Your task to perform on an android device: delete location history Image 0: 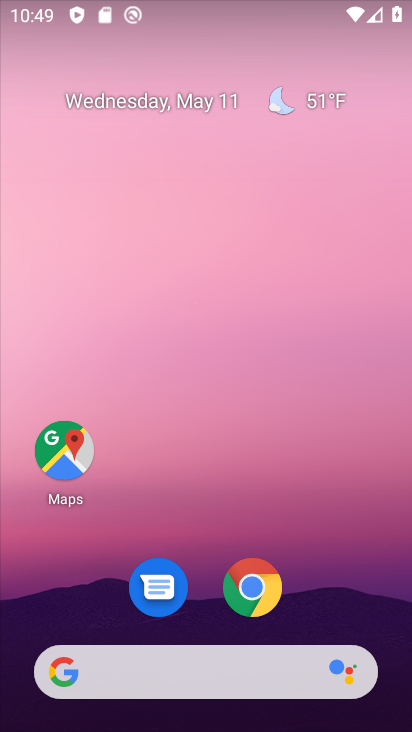
Step 0: click (61, 447)
Your task to perform on an android device: delete location history Image 1: 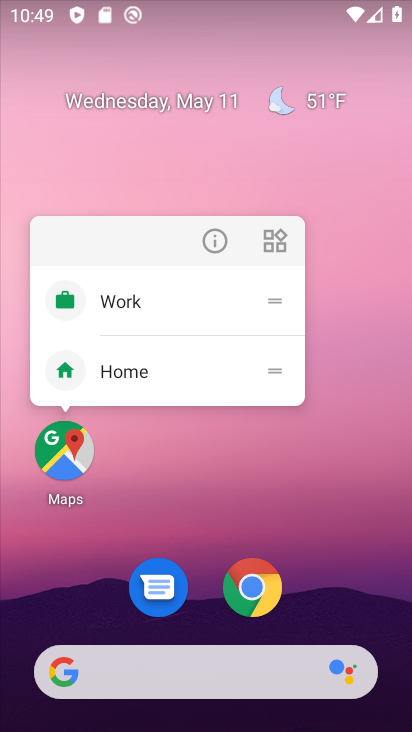
Step 1: click (60, 450)
Your task to perform on an android device: delete location history Image 2: 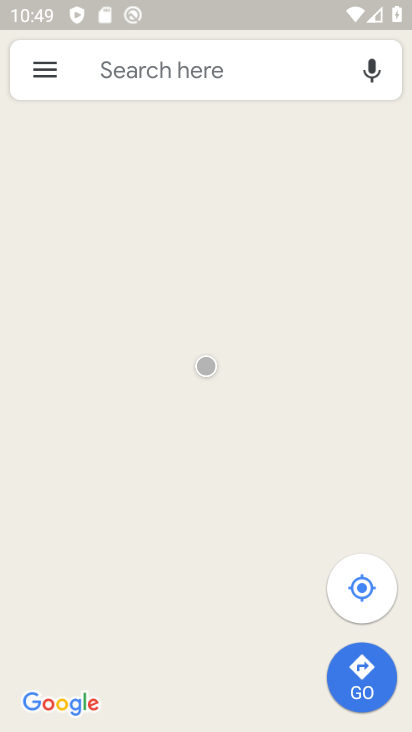
Step 2: click (30, 64)
Your task to perform on an android device: delete location history Image 3: 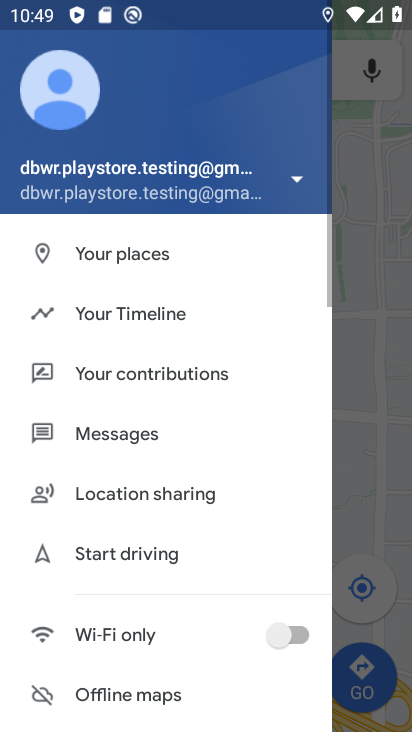
Step 3: click (150, 308)
Your task to perform on an android device: delete location history Image 4: 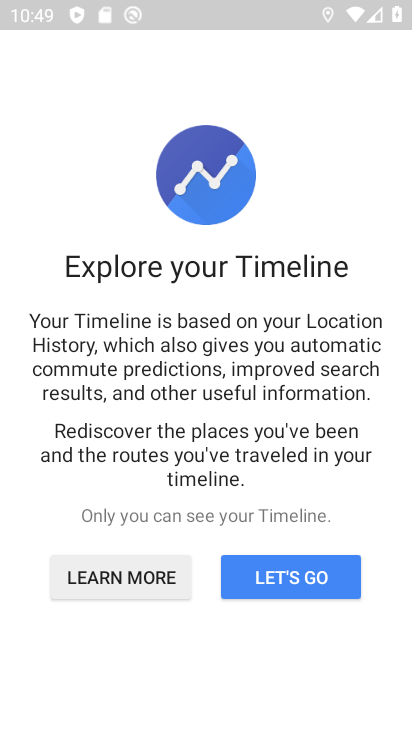
Step 4: click (269, 592)
Your task to perform on an android device: delete location history Image 5: 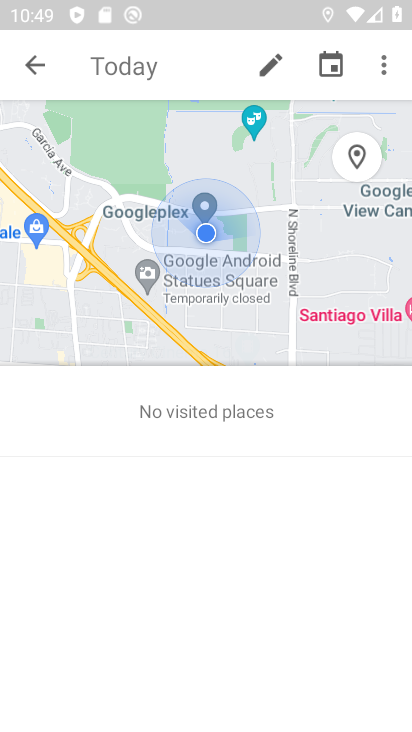
Step 5: click (390, 60)
Your task to perform on an android device: delete location history Image 6: 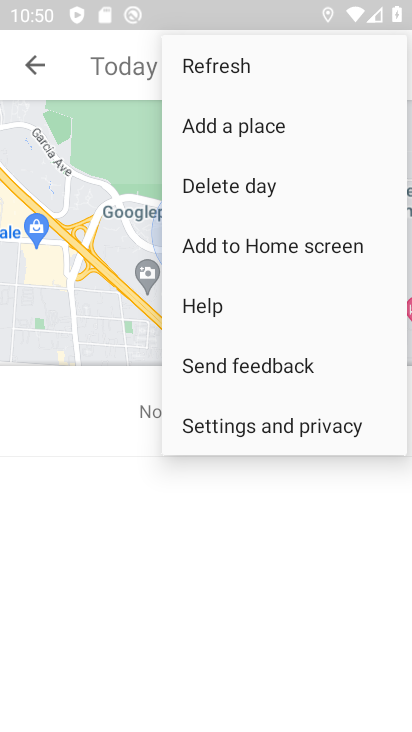
Step 6: click (224, 429)
Your task to perform on an android device: delete location history Image 7: 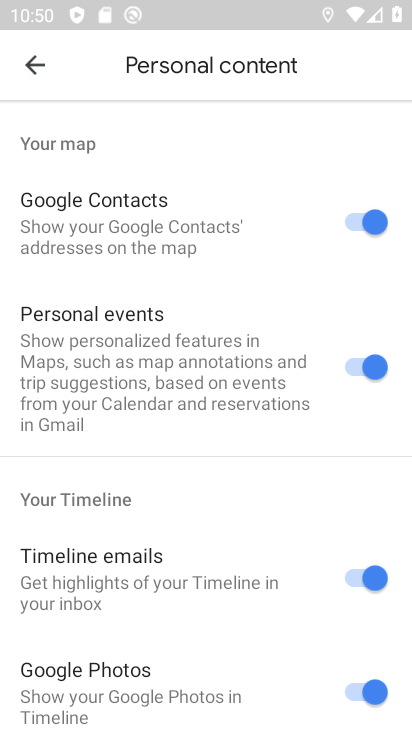
Step 7: drag from (186, 636) to (238, 73)
Your task to perform on an android device: delete location history Image 8: 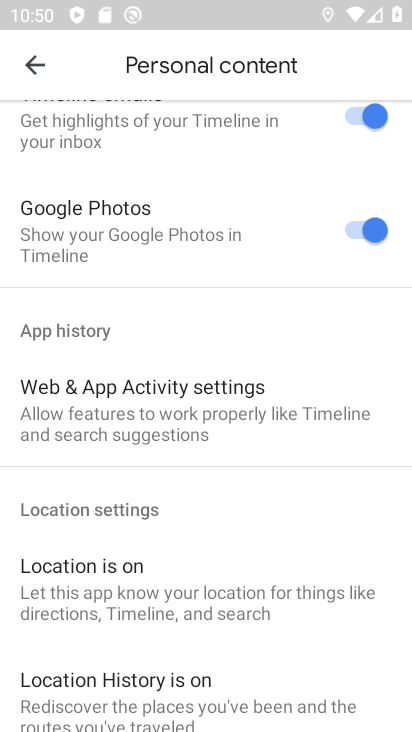
Step 8: drag from (214, 592) to (263, 76)
Your task to perform on an android device: delete location history Image 9: 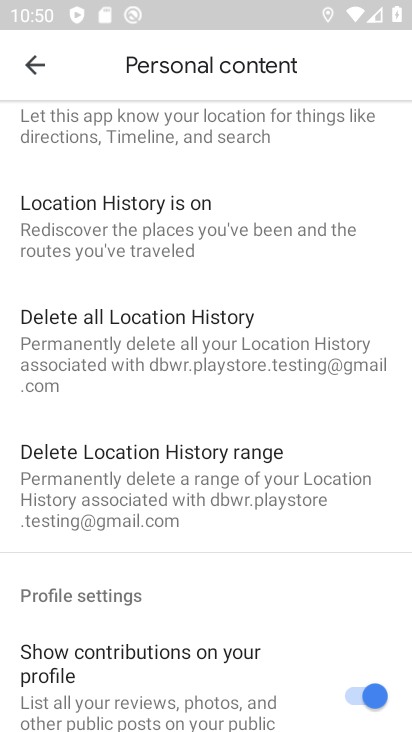
Step 9: click (142, 356)
Your task to perform on an android device: delete location history Image 10: 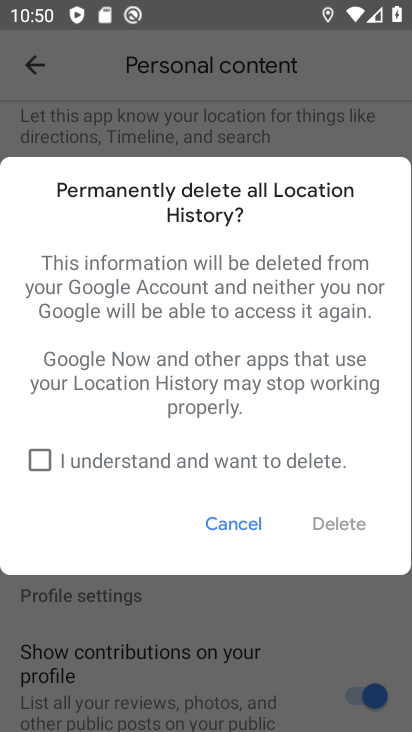
Step 10: click (67, 453)
Your task to perform on an android device: delete location history Image 11: 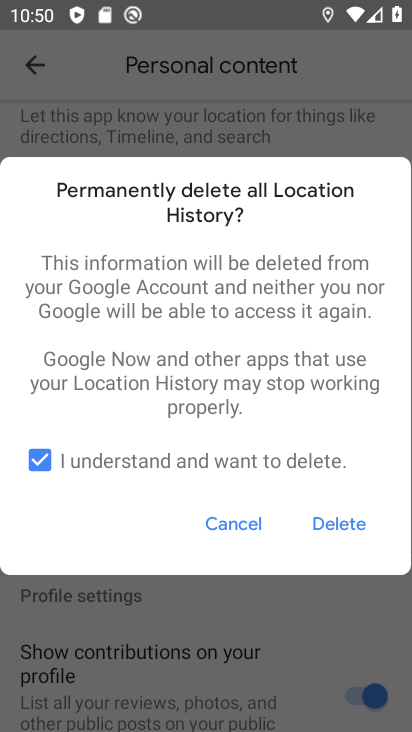
Step 11: click (314, 516)
Your task to perform on an android device: delete location history Image 12: 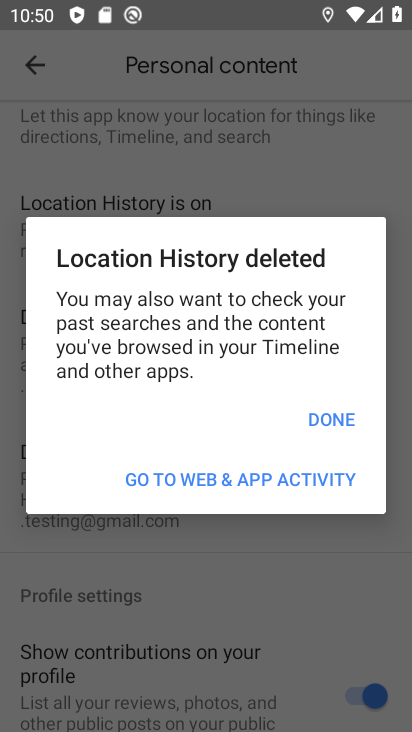
Step 12: click (326, 417)
Your task to perform on an android device: delete location history Image 13: 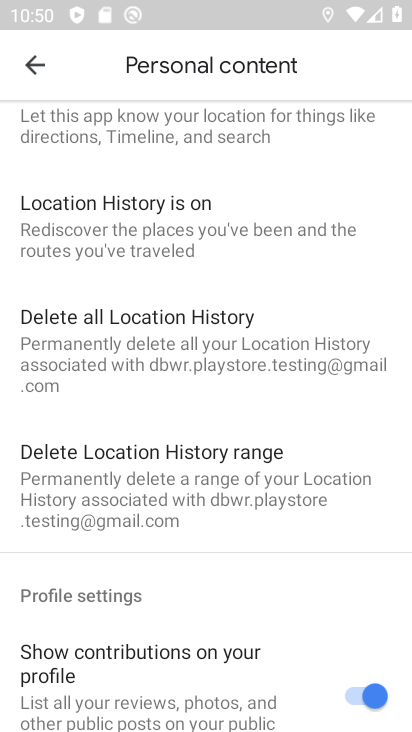
Step 13: task complete